Your task to perform on an android device: move an email to a new category in the gmail app Image 0: 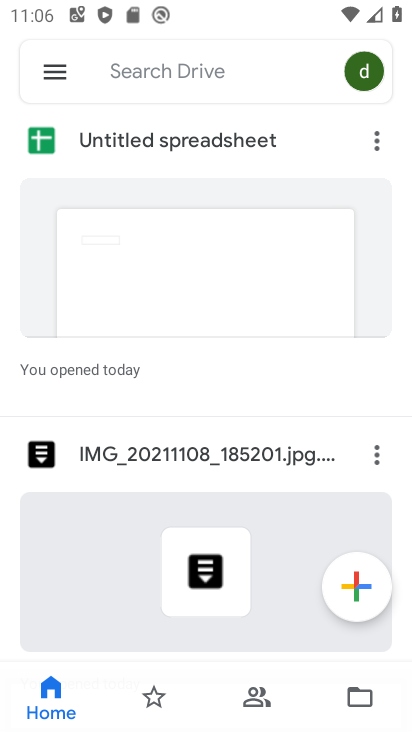
Step 0: press back button
Your task to perform on an android device: move an email to a new category in the gmail app Image 1: 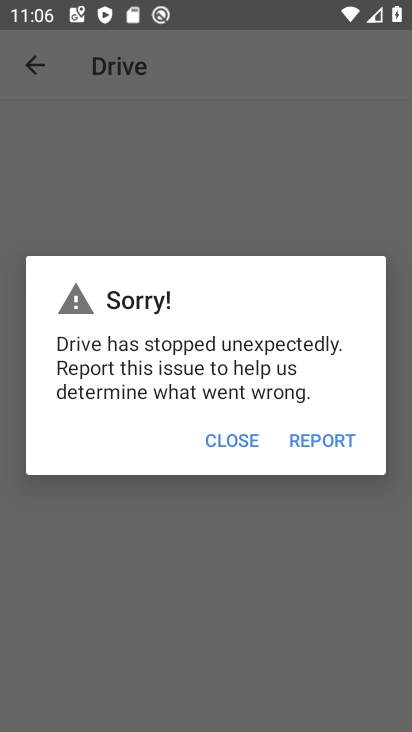
Step 1: press back button
Your task to perform on an android device: move an email to a new category in the gmail app Image 2: 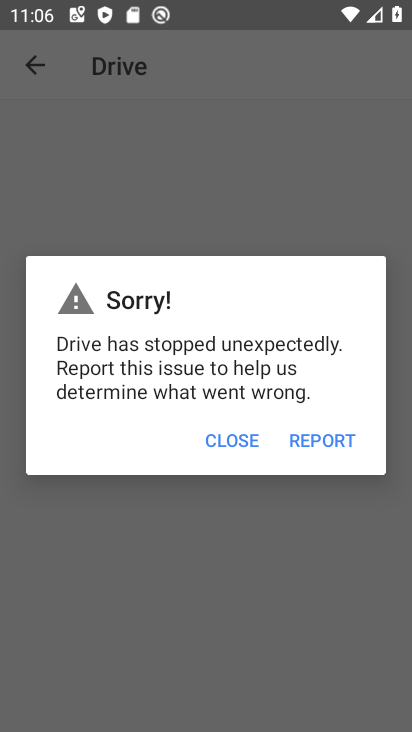
Step 2: press home button
Your task to perform on an android device: move an email to a new category in the gmail app Image 3: 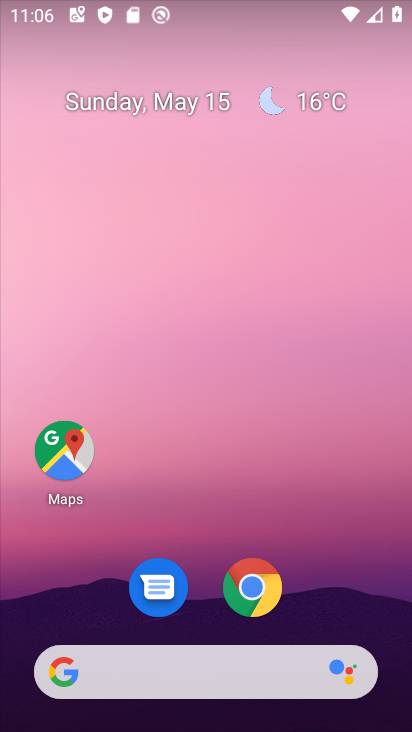
Step 3: drag from (294, 572) to (205, 48)
Your task to perform on an android device: move an email to a new category in the gmail app Image 4: 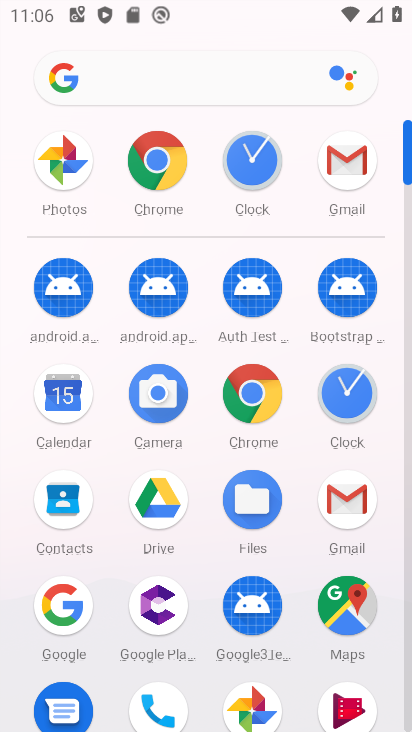
Step 4: click (347, 493)
Your task to perform on an android device: move an email to a new category in the gmail app Image 5: 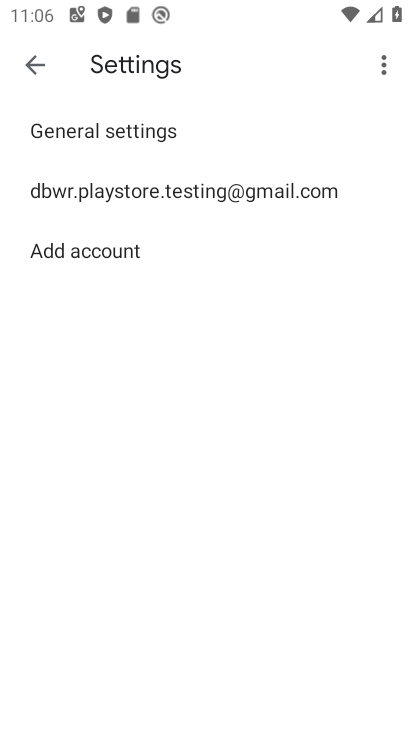
Step 5: click (34, 63)
Your task to perform on an android device: move an email to a new category in the gmail app Image 6: 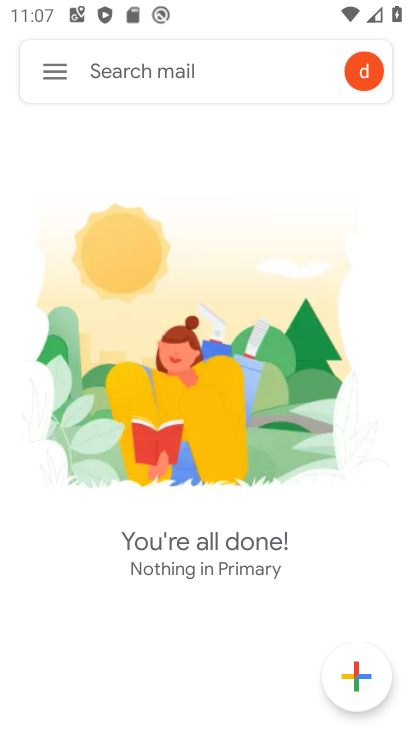
Step 6: click (58, 83)
Your task to perform on an android device: move an email to a new category in the gmail app Image 7: 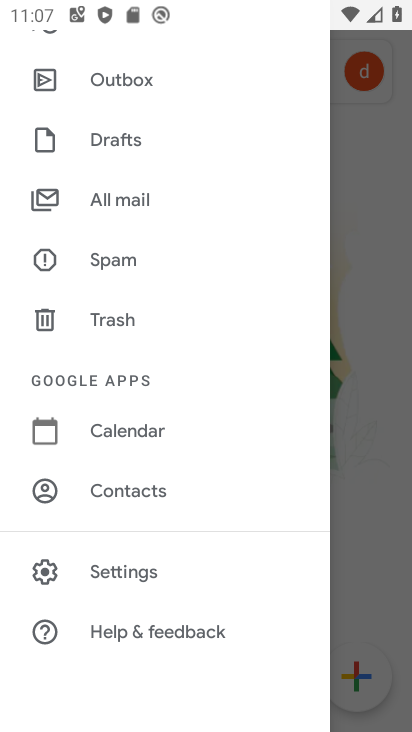
Step 7: click (144, 195)
Your task to perform on an android device: move an email to a new category in the gmail app Image 8: 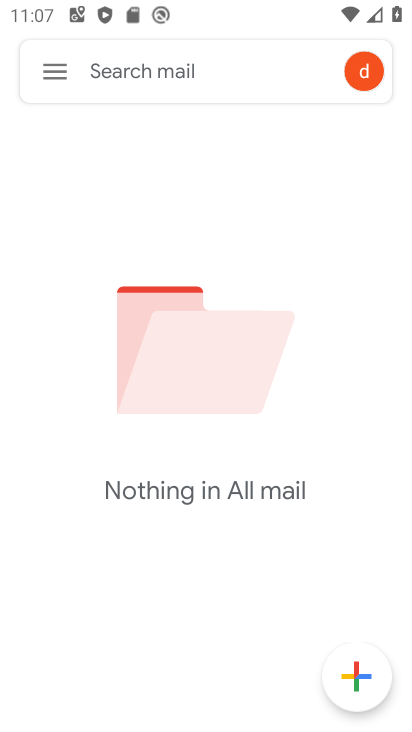
Step 8: click (55, 76)
Your task to perform on an android device: move an email to a new category in the gmail app Image 9: 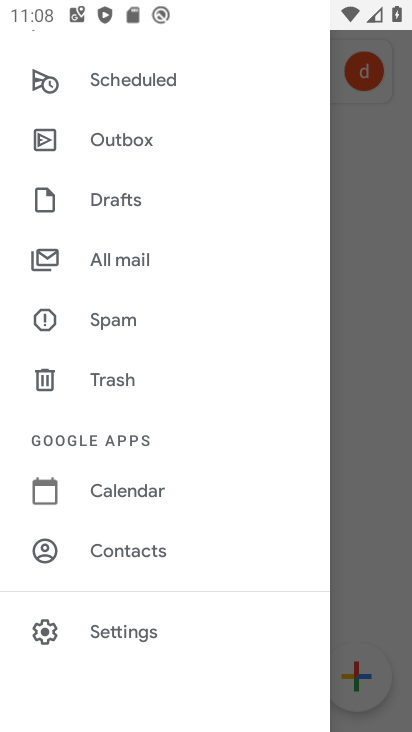
Step 9: click (153, 249)
Your task to perform on an android device: move an email to a new category in the gmail app Image 10: 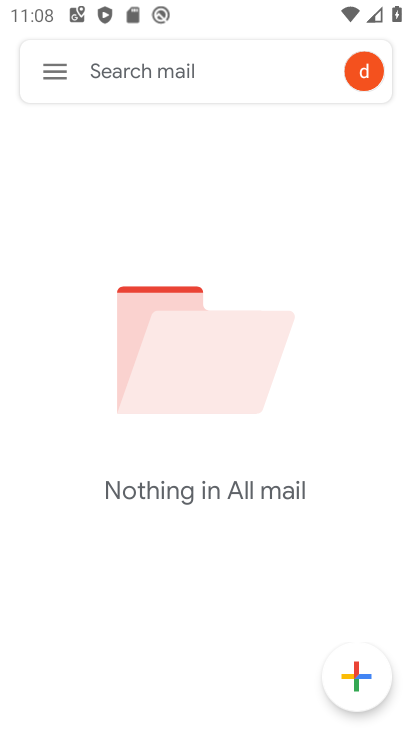
Step 10: task complete